Your task to perform on an android device: Open the calculator Image 0: 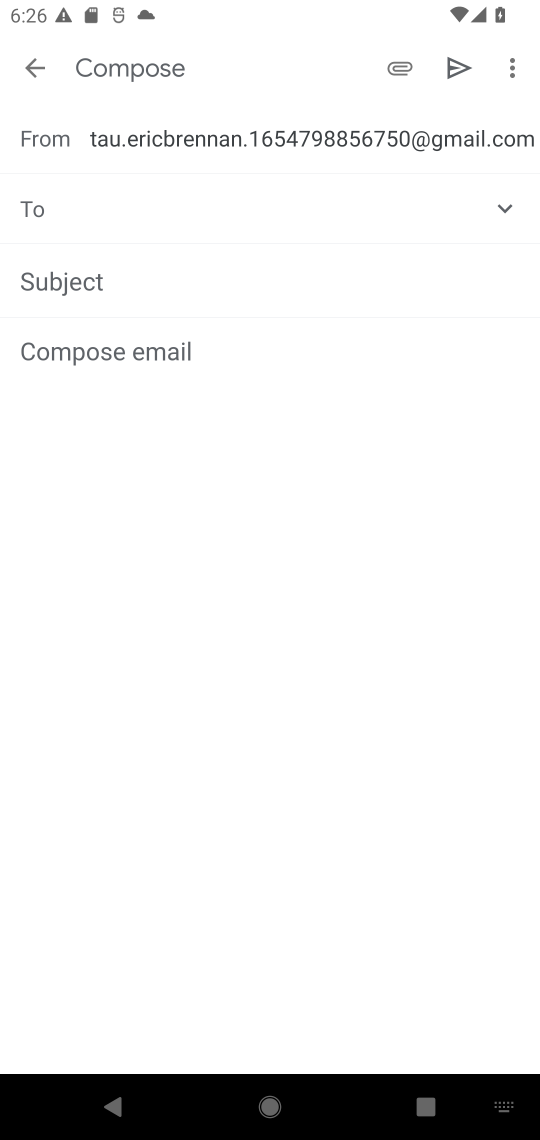
Step 0: press home button
Your task to perform on an android device: Open the calculator Image 1: 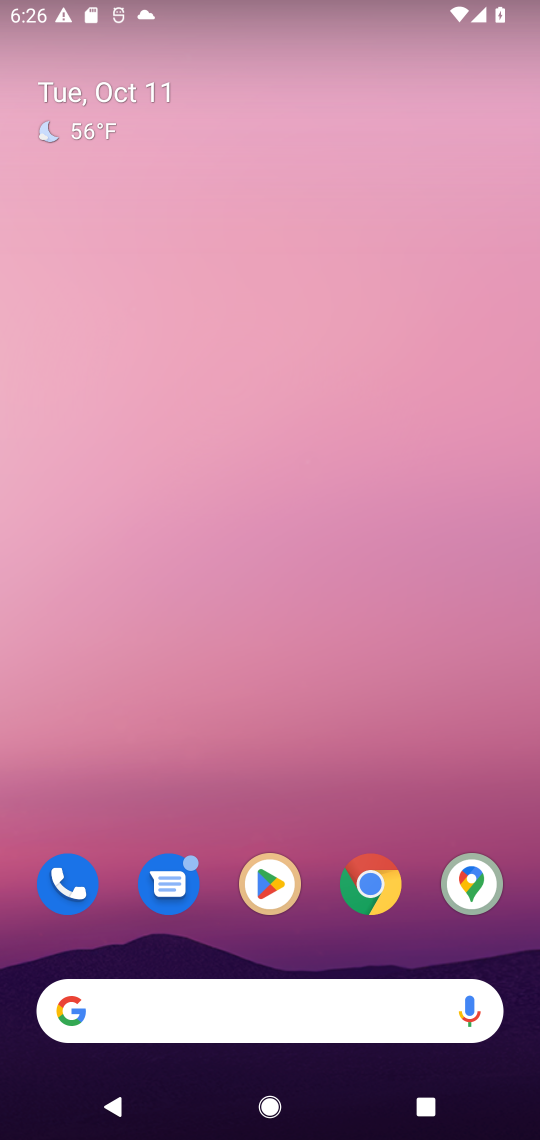
Step 1: drag from (334, 971) to (341, 19)
Your task to perform on an android device: Open the calculator Image 2: 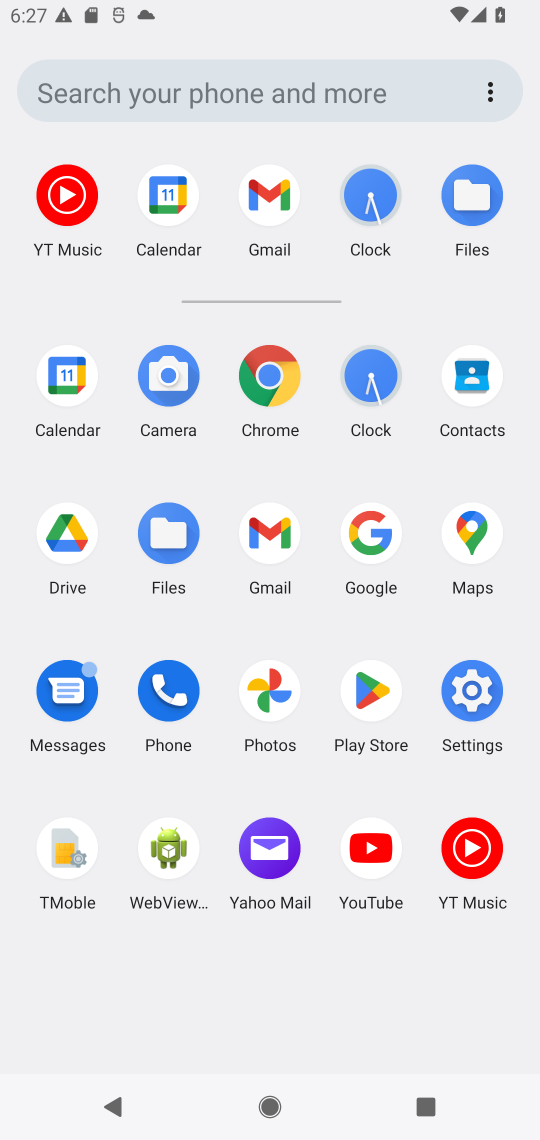
Step 2: click (282, 89)
Your task to perform on an android device: Open the calculator Image 3: 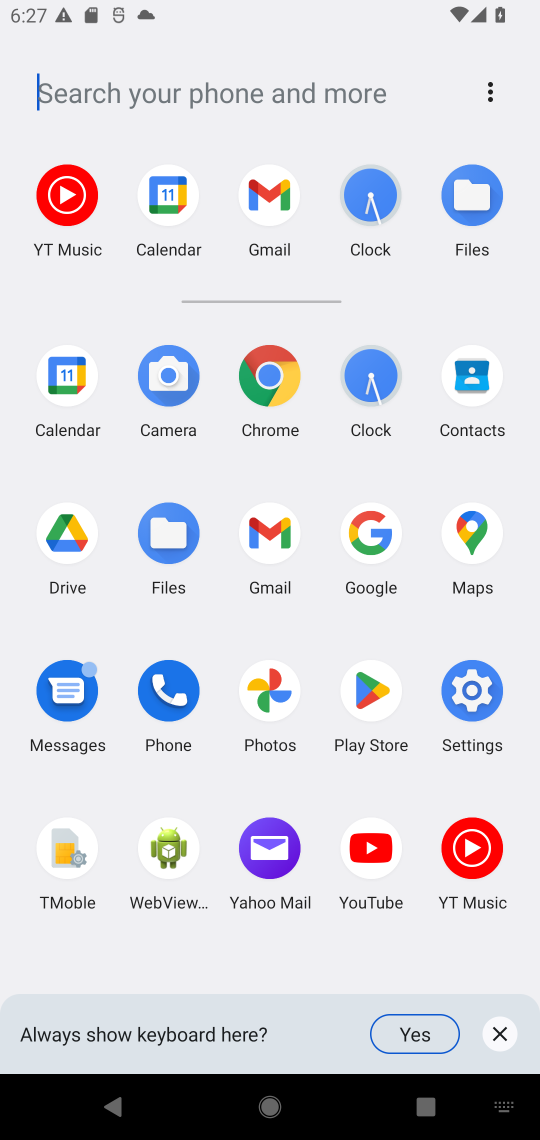
Step 3: type "calculator"
Your task to perform on an android device: Open the calculator Image 4: 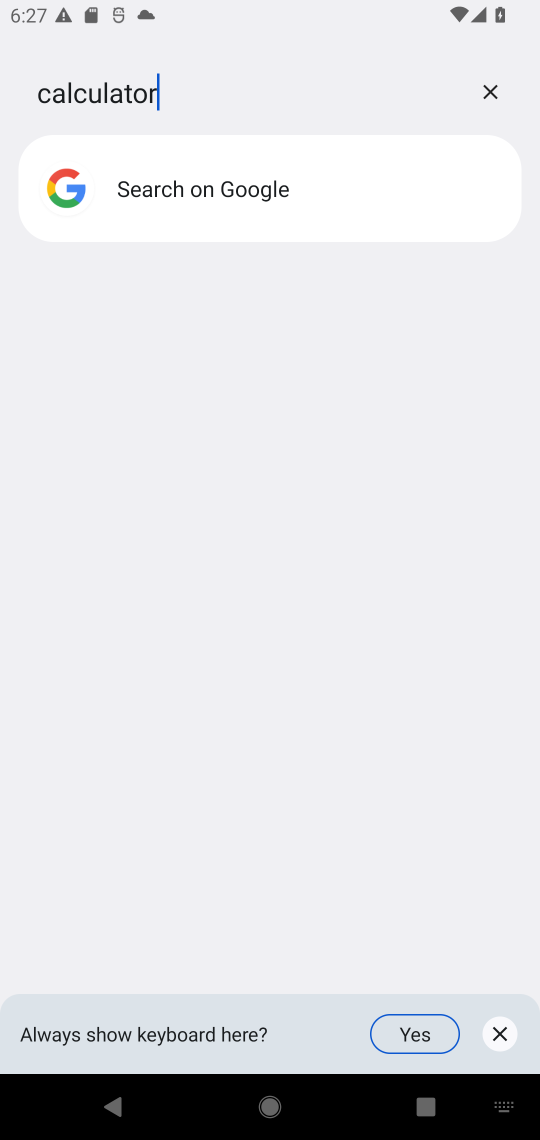
Step 4: type ""
Your task to perform on an android device: Open the calculator Image 5: 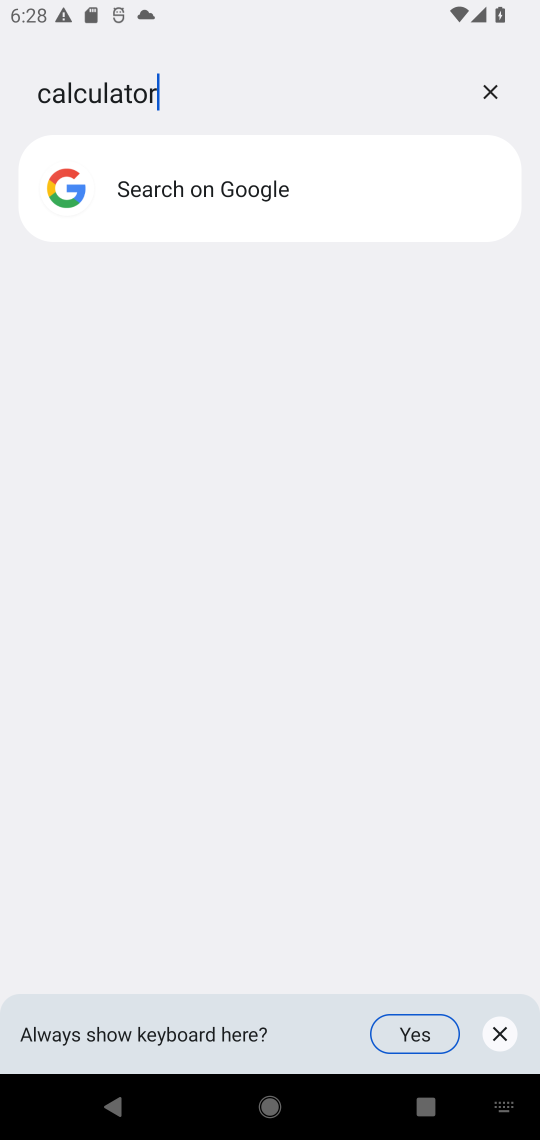
Step 5: task complete